Your task to perform on an android device: Where can I buy a nice beach hat? Image 0: 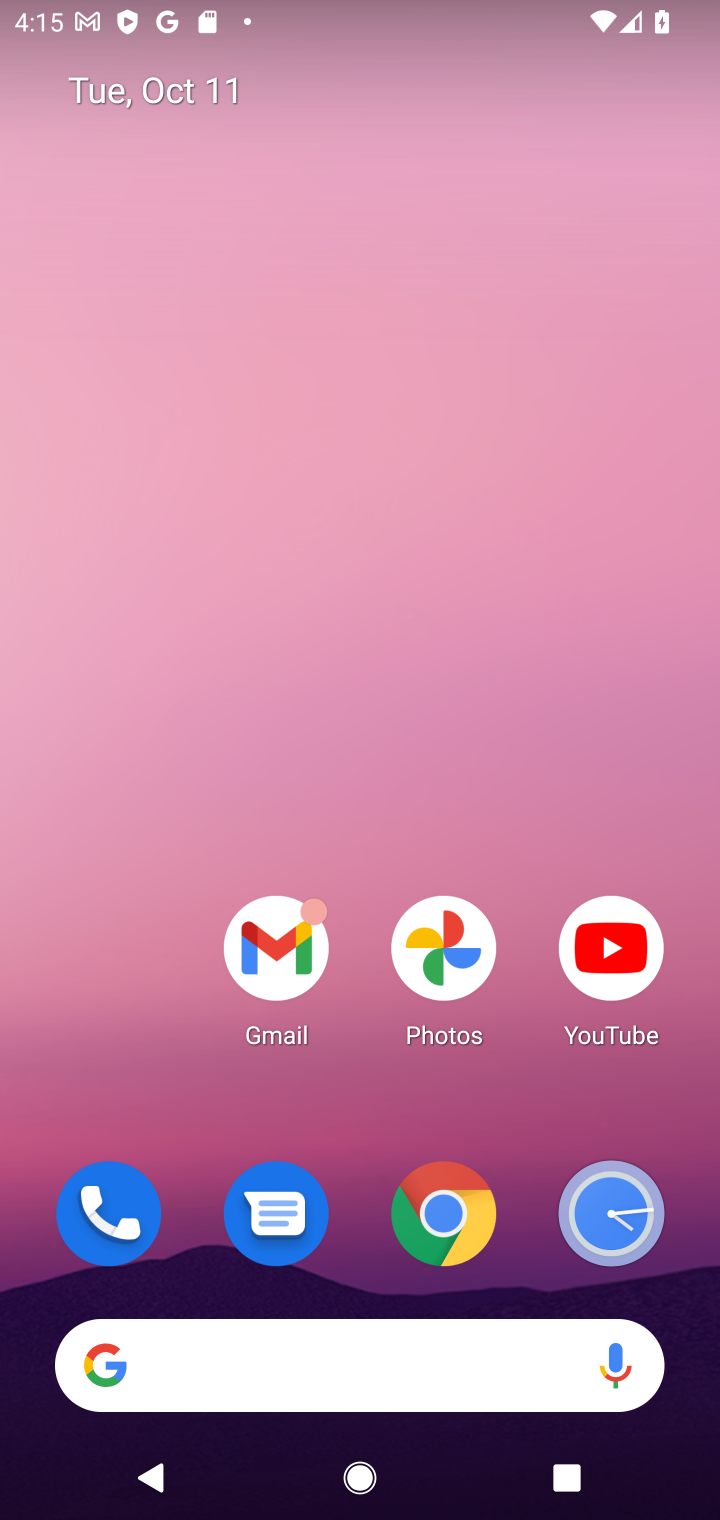
Step 0: click (446, 1224)
Your task to perform on an android device: Where can I buy a nice beach hat? Image 1: 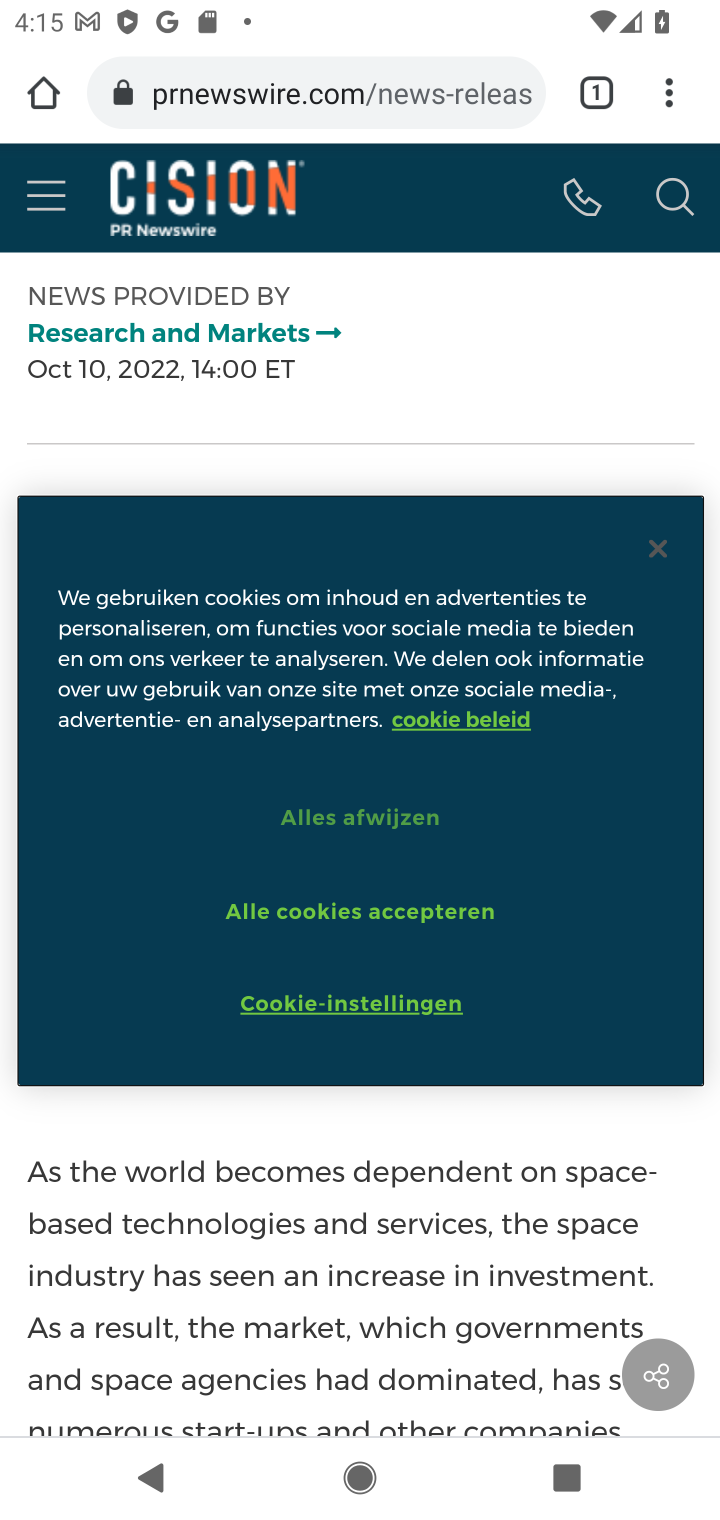
Step 1: click (310, 92)
Your task to perform on an android device: Where can I buy a nice beach hat? Image 2: 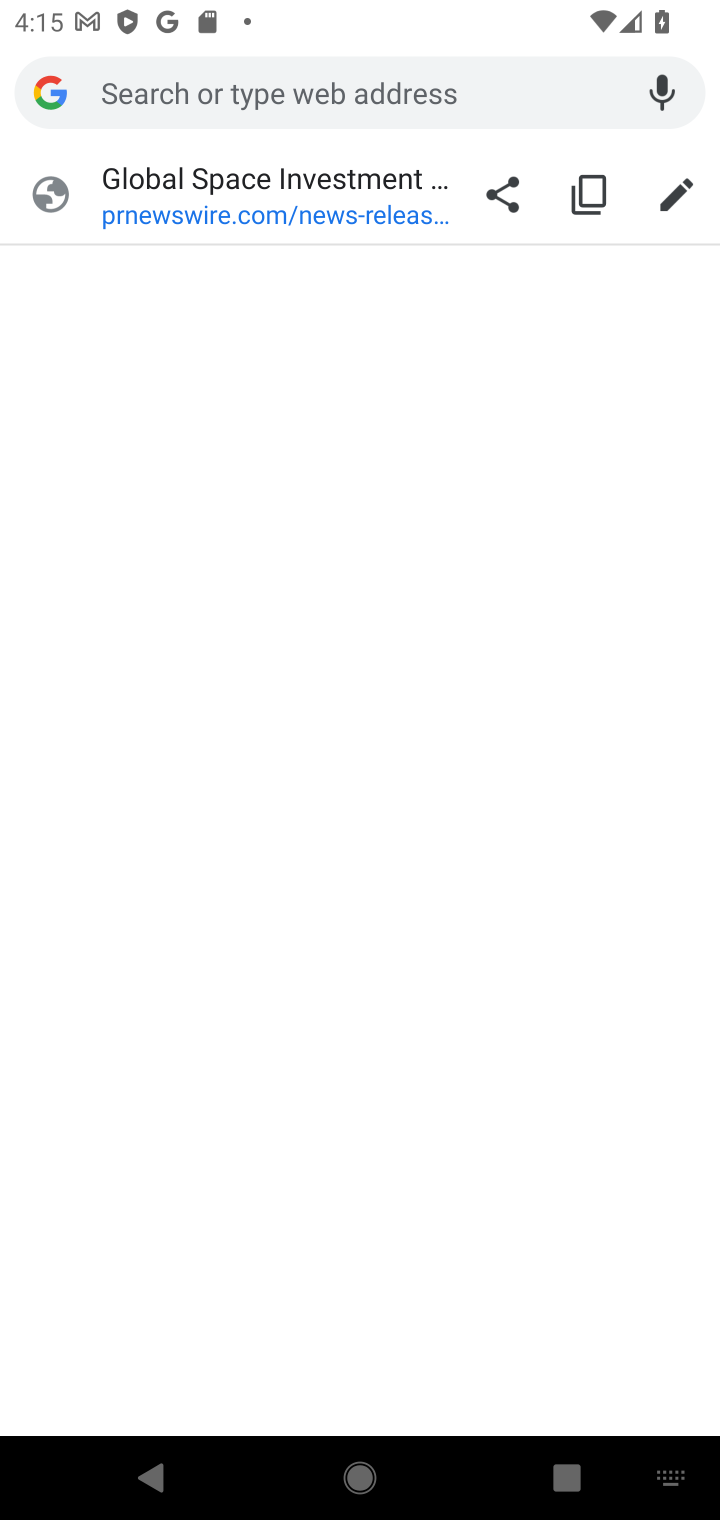
Step 2: type "nice beach hat"
Your task to perform on an android device: Where can I buy a nice beach hat? Image 3: 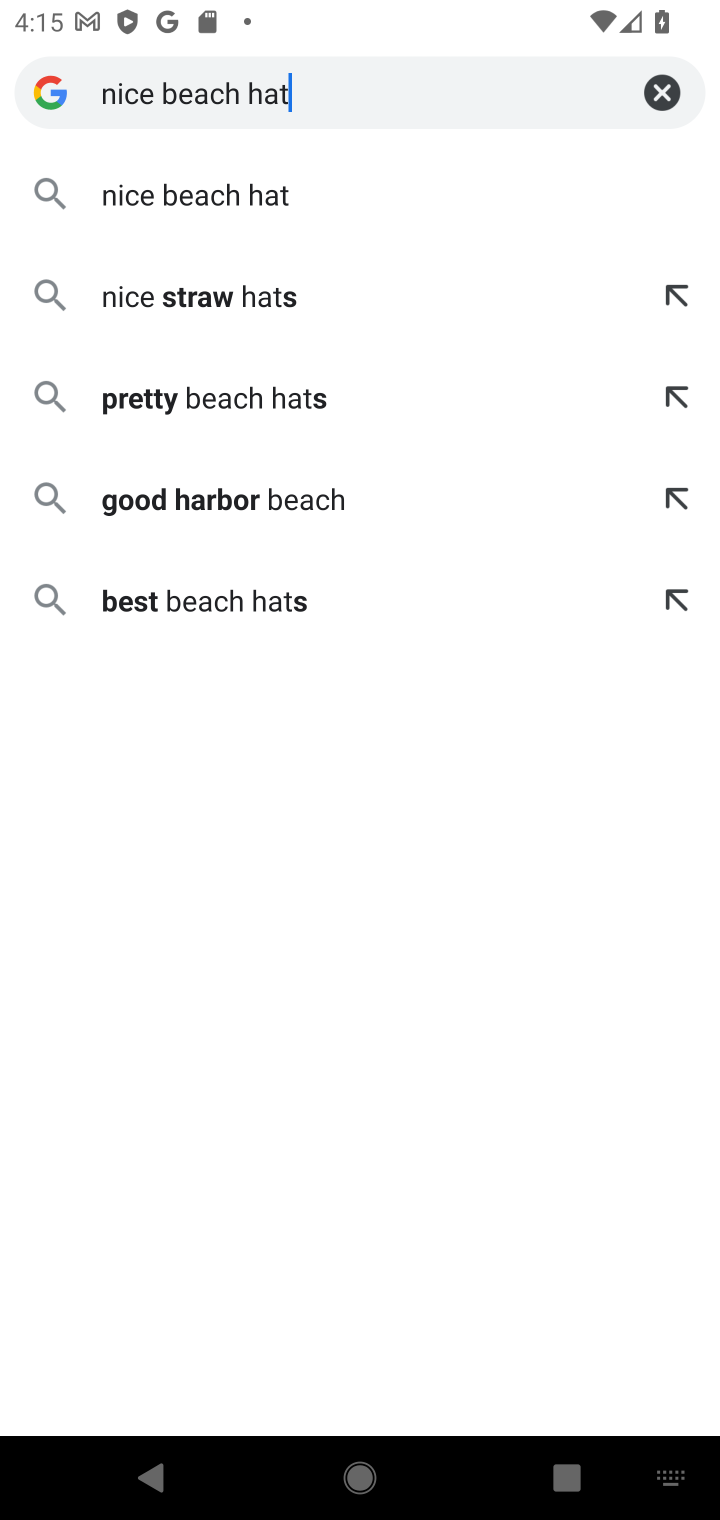
Step 3: click (231, 198)
Your task to perform on an android device: Where can I buy a nice beach hat? Image 4: 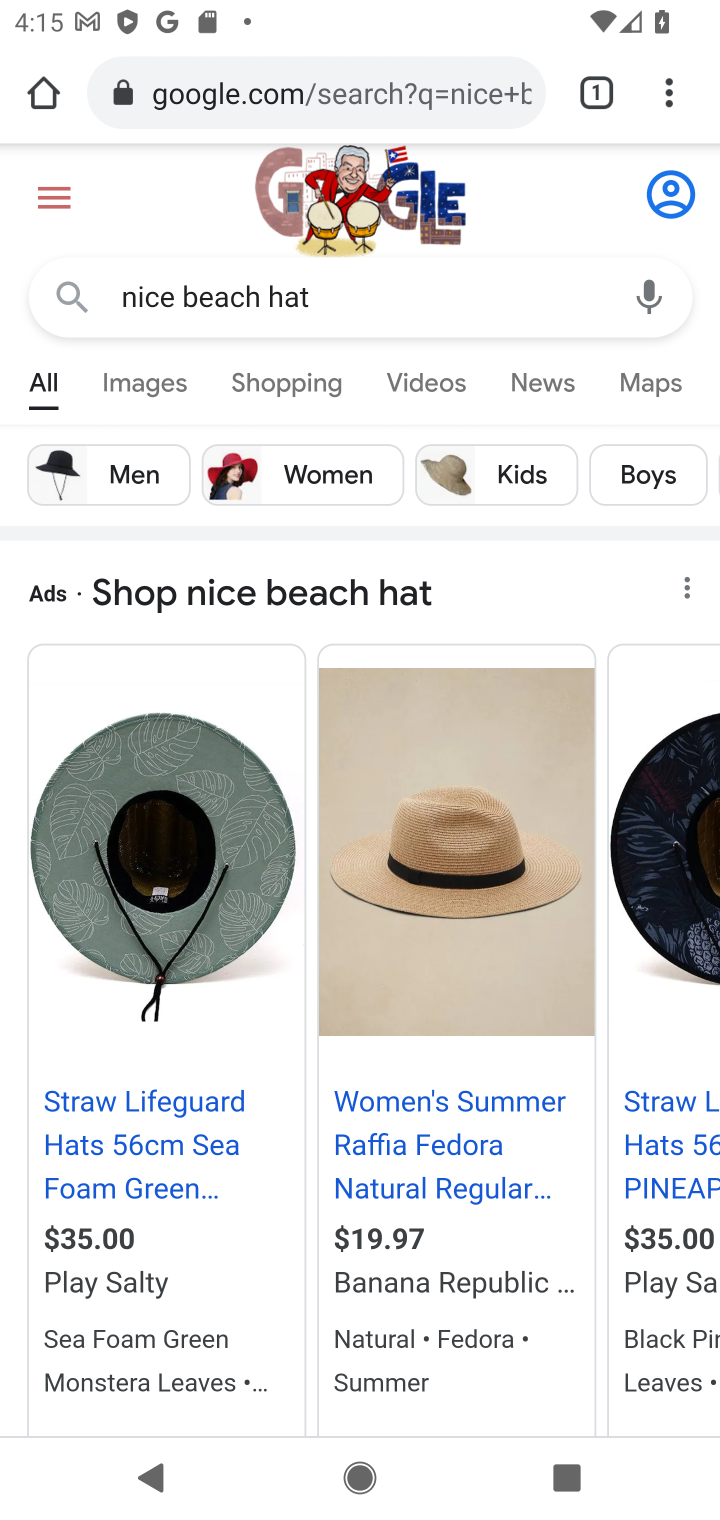
Step 4: click (284, 382)
Your task to perform on an android device: Where can I buy a nice beach hat? Image 5: 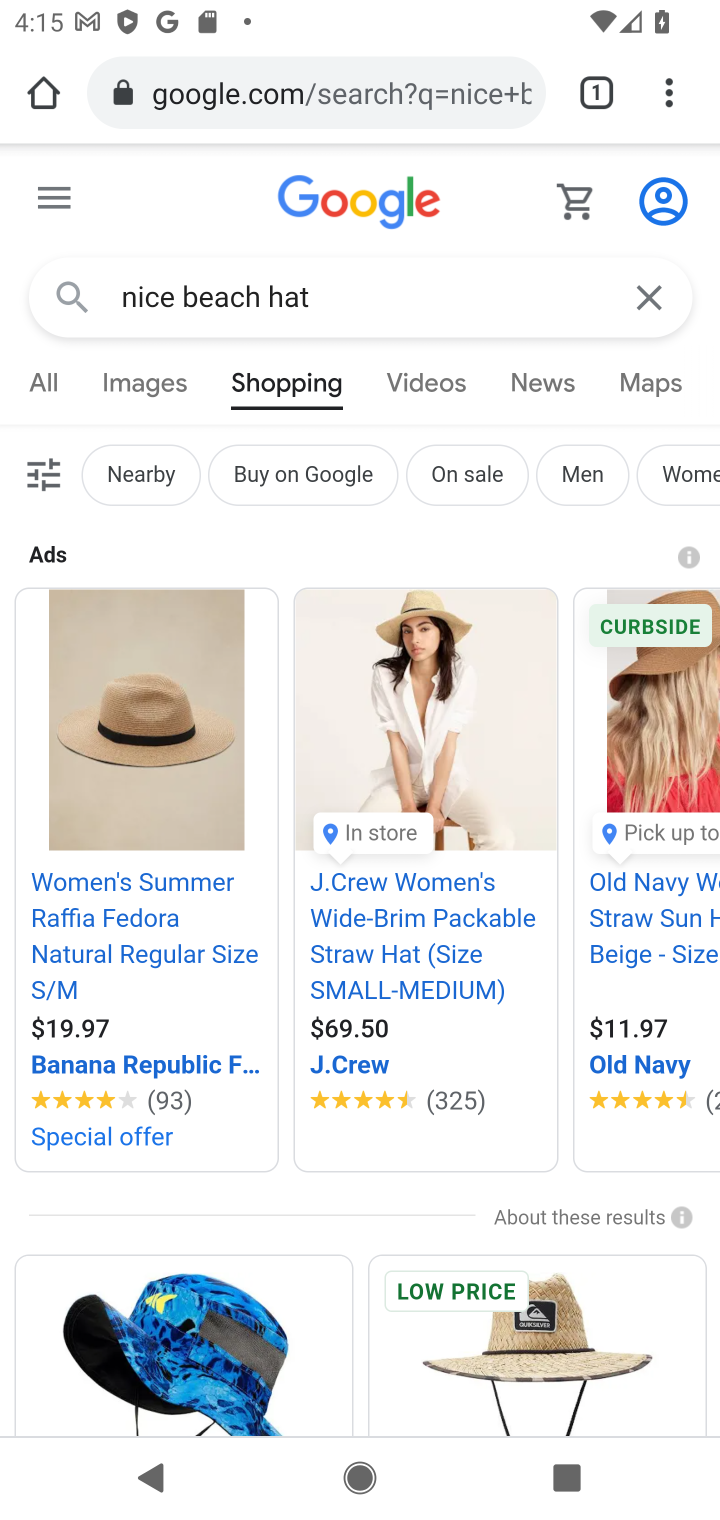
Step 5: task complete